Your task to perform on an android device: Show me popular games on the Play Store Image 0: 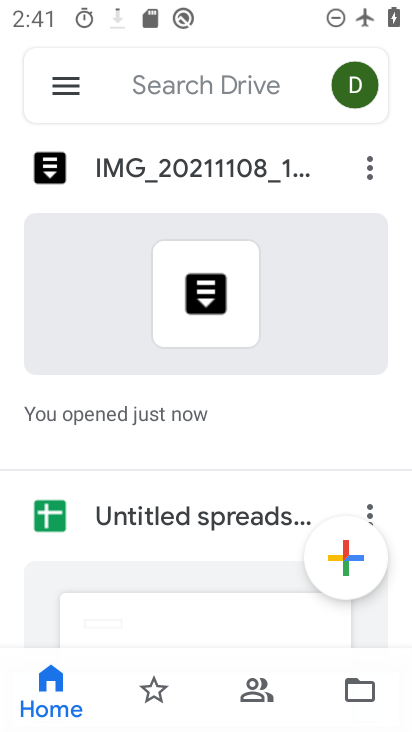
Step 0: drag from (196, 527) to (219, 302)
Your task to perform on an android device: Show me popular games on the Play Store Image 1: 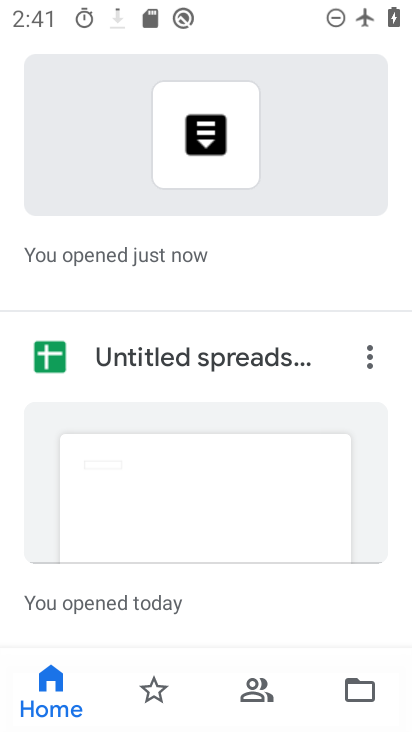
Step 1: press home button
Your task to perform on an android device: Show me popular games on the Play Store Image 2: 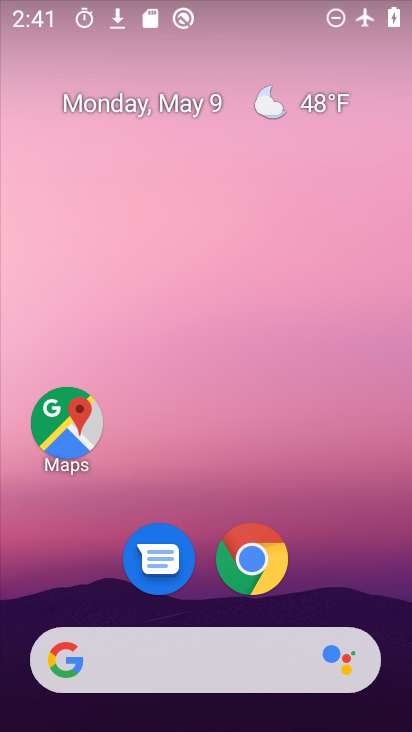
Step 2: drag from (207, 625) to (312, 32)
Your task to perform on an android device: Show me popular games on the Play Store Image 3: 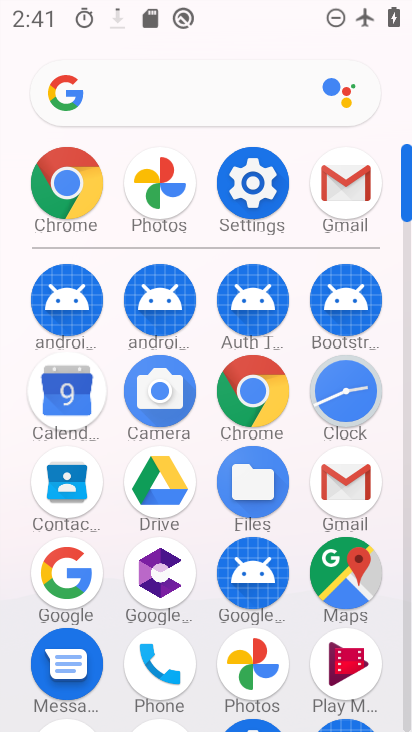
Step 3: drag from (194, 655) to (259, 284)
Your task to perform on an android device: Show me popular games on the Play Store Image 4: 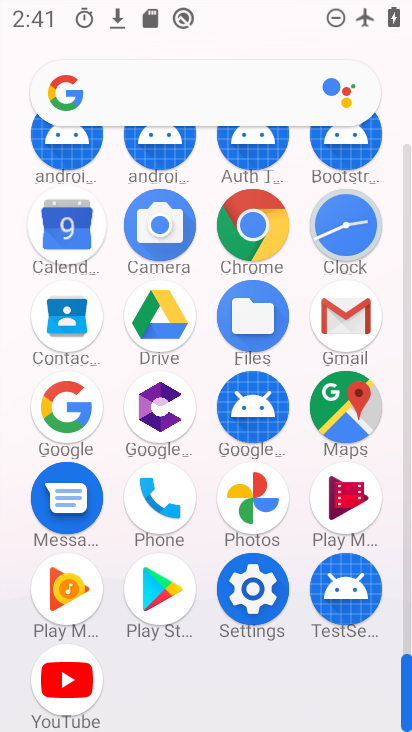
Step 4: click (159, 611)
Your task to perform on an android device: Show me popular games on the Play Store Image 5: 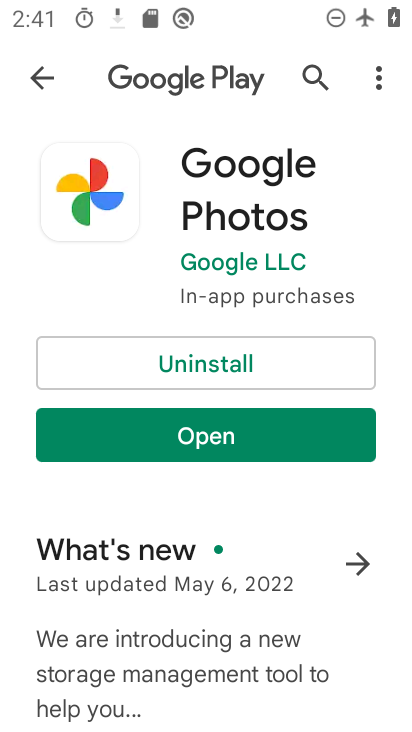
Step 5: click (49, 64)
Your task to perform on an android device: Show me popular games on the Play Store Image 6: 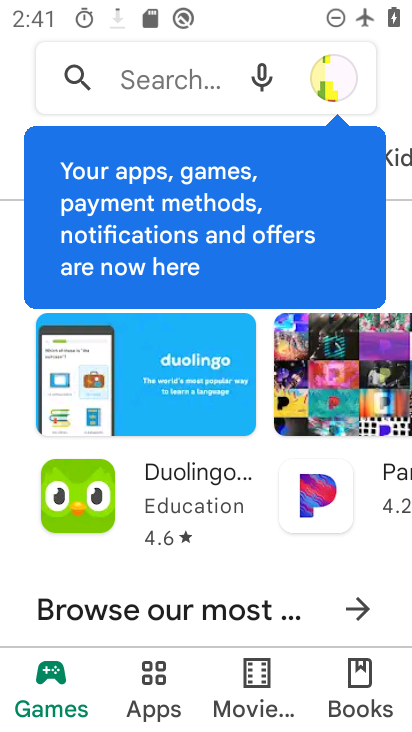
Step 6: drag from (166, 562) to (230, 202)
Your task to perform on an android device: Show me popular games on the Play Store Image 7: 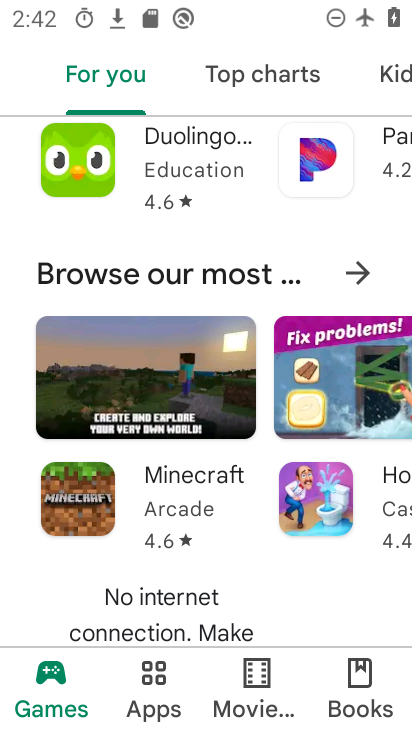
Step 7: drag from (196, 547) to (292, 197)
Your task to perform on an android device: Show me popular games on the Play Store Image 8: 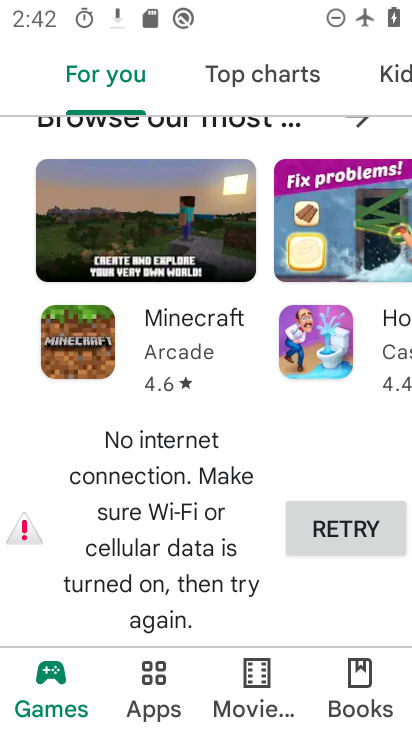
Step 8: drag from (222, 277) to (195, 611)
Your task to perform on an android device: Show me popular games on the Play Store Image 9: 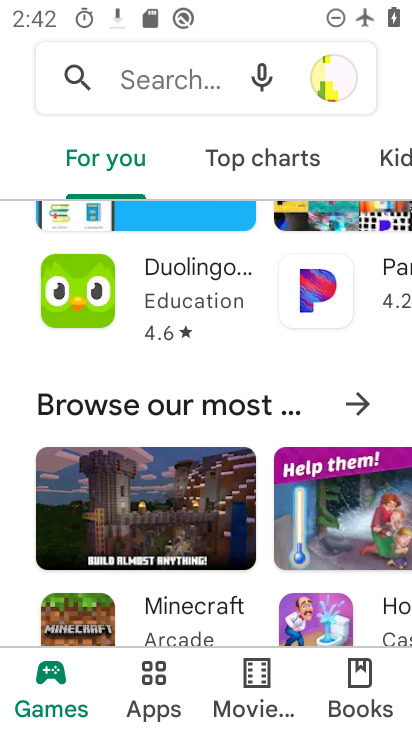
Step 9: drag from (374, 170) to (147, 170)
Your task to perform on an android device: Show me popular games on the Play Store Image 10: 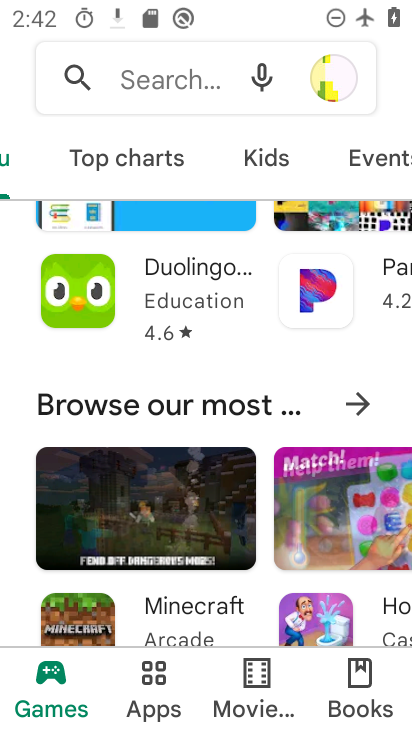
Step 10: click (246, 164)
Your task to perform on an android device: Show me popular games on the Play Store Image 11: 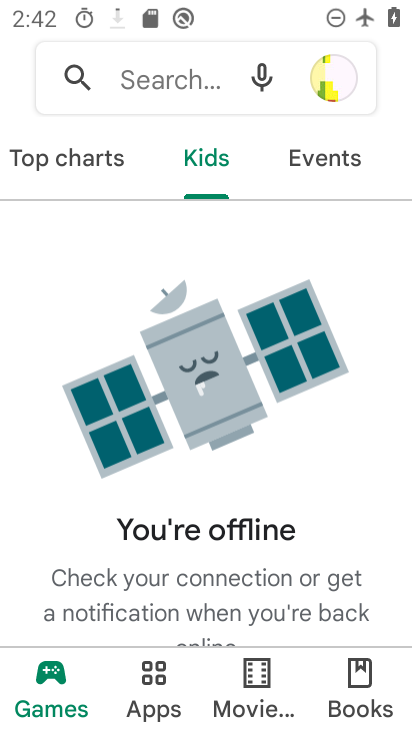
Step 11: drag from (83, 159) to (391, 162)
Your task to perform on an android device: Show me popular games on the Play Store Image 12: 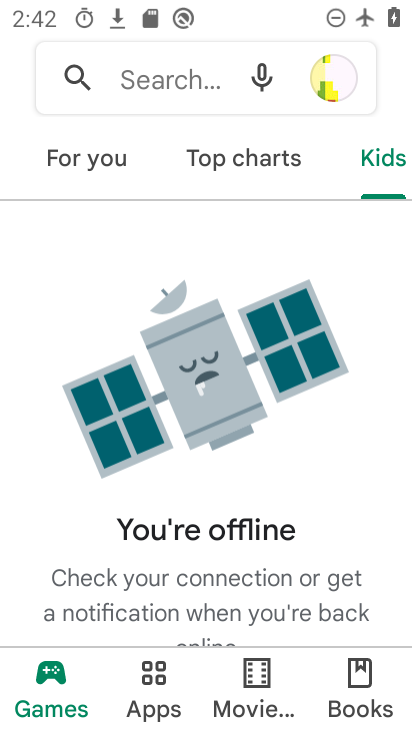
Step 12: click (67, 180)
Your task to perform on an android device: Show me popular games on the Play Store Image 13: 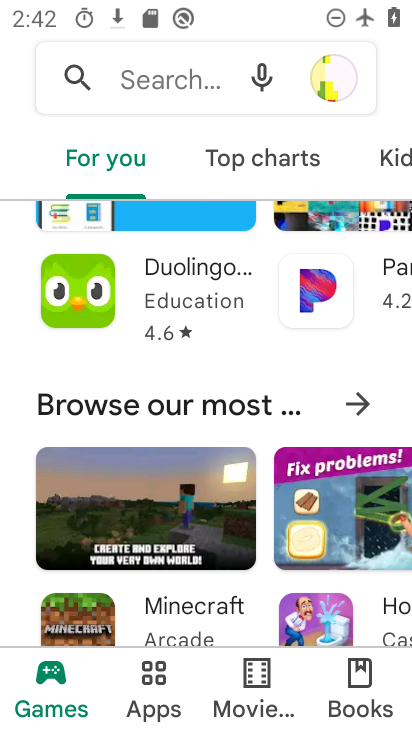
Step 13: task complete